Your task to perform on an android device: empty trash in the gmail app Image 0: 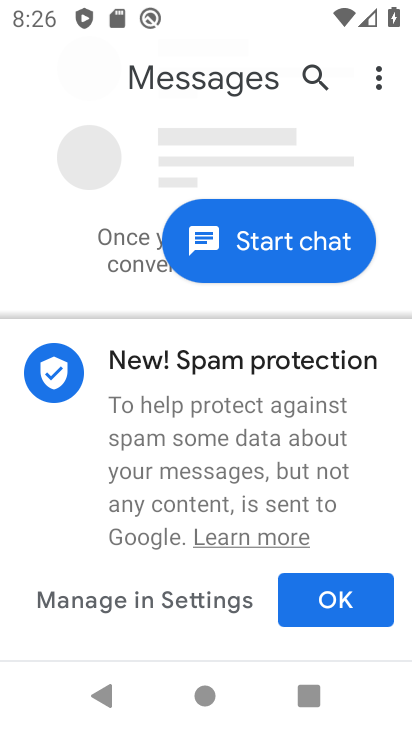
Step 0: click (344, 586)
Your task to perform on an android device: empty trash in the gmail app Image 1: 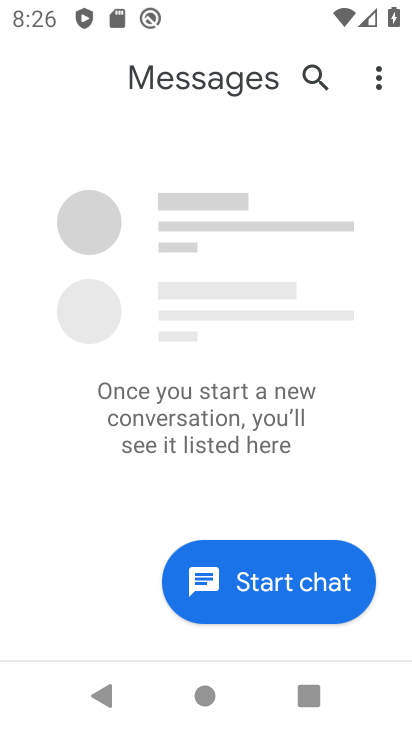
Step 1: press home button
Your task to perform on an android device: empty trash in the gmail app Image 2: 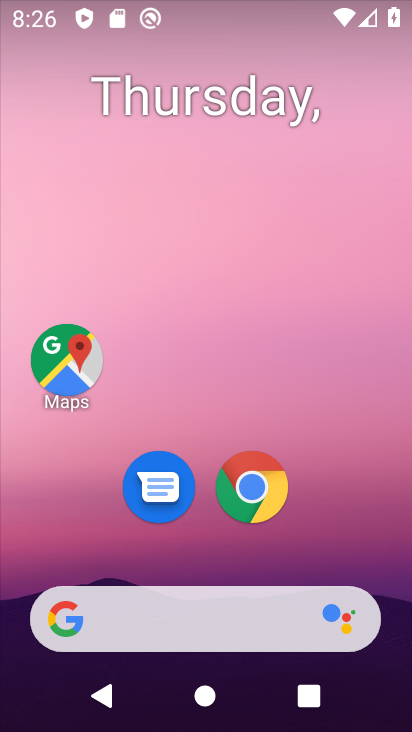
Step 2: drag from (241, 661) to (348, 180)
Your task to perform on an android device: empty trash in the gmail app Image 3: 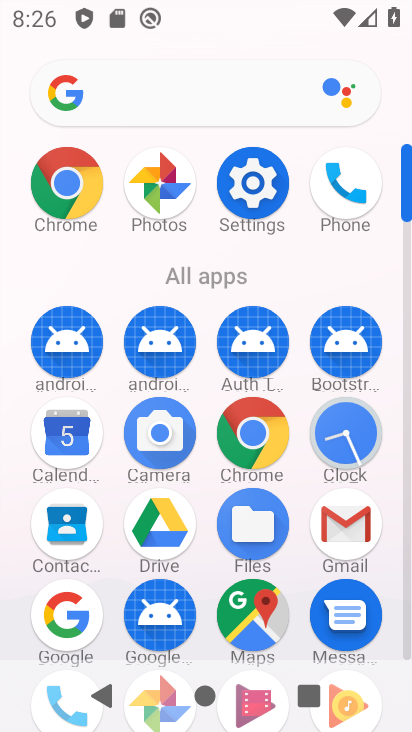
Step 3: click (329, 529)
Your task to perform on an android device: empty trash in the gmail app Image 4: 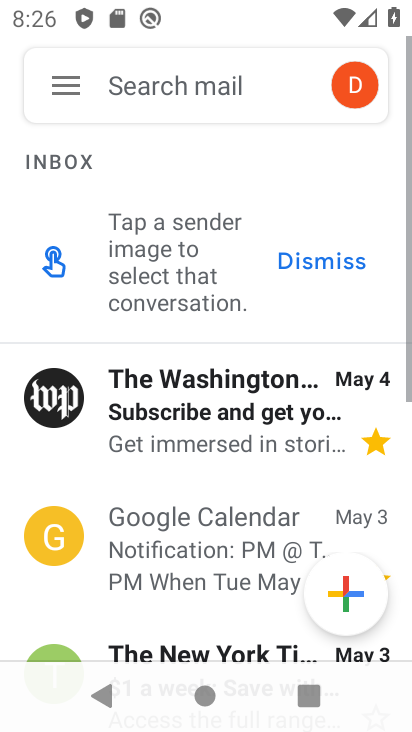
Step 4: click (324, 253)
Your task to perform on an android device: empty trash in the gmail app Image 5: 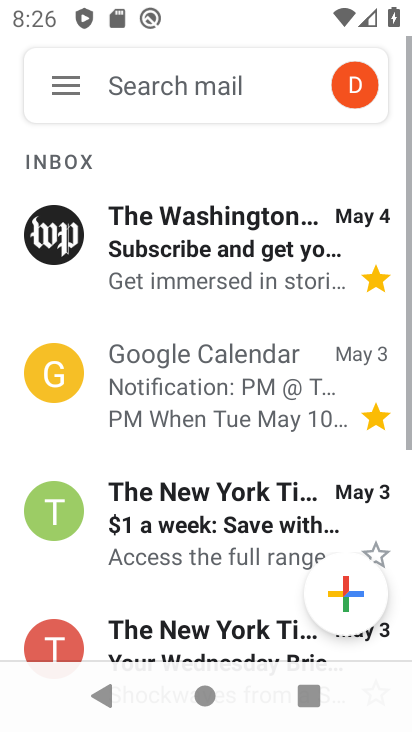
Step 5: click (49, 88)
Your task to perform on an android device: empty trash in the gmail app Image 6: 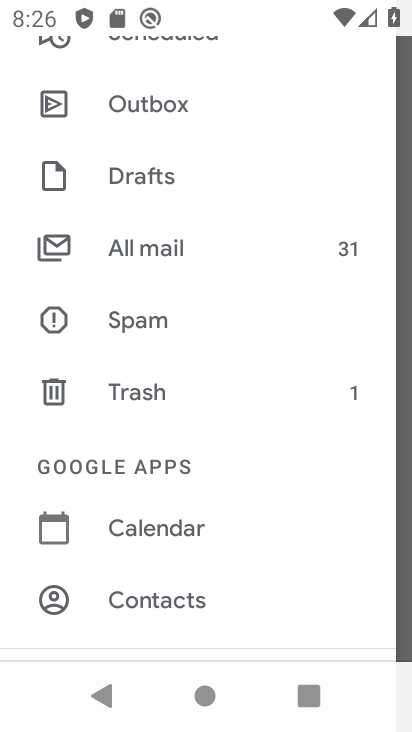
Step 6: click (137, 400)
Your task to perform on an android device: empty trash in the gmail app Image 7: 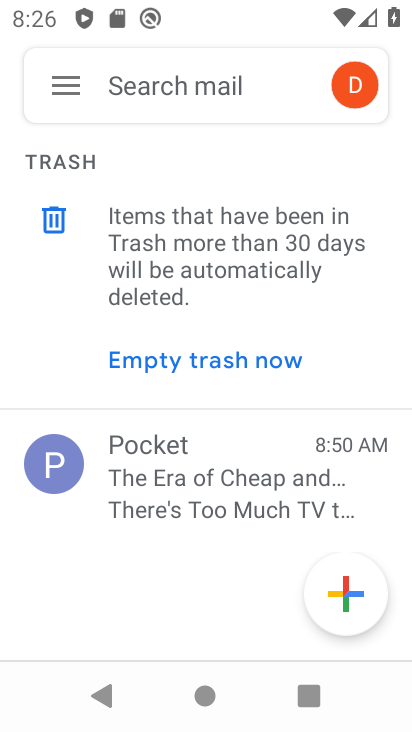
Step 7: click (194, 362)
Your task to perform on an android device: empty trash in the gmail app Image 8: 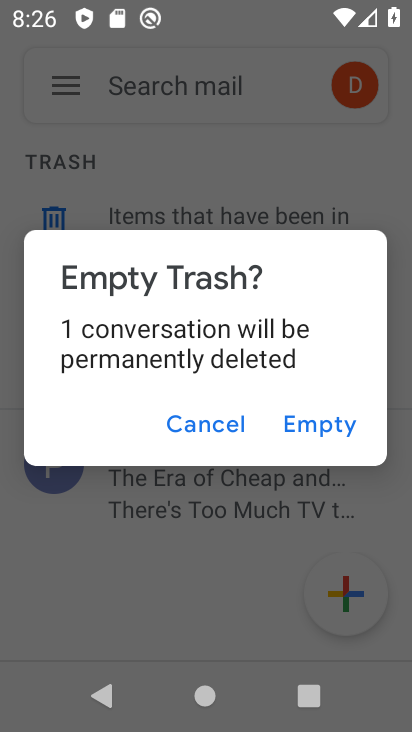
Step 8: click (300, 429)
Your task to perform on an android device: empty trash in the gmail app Image 9: 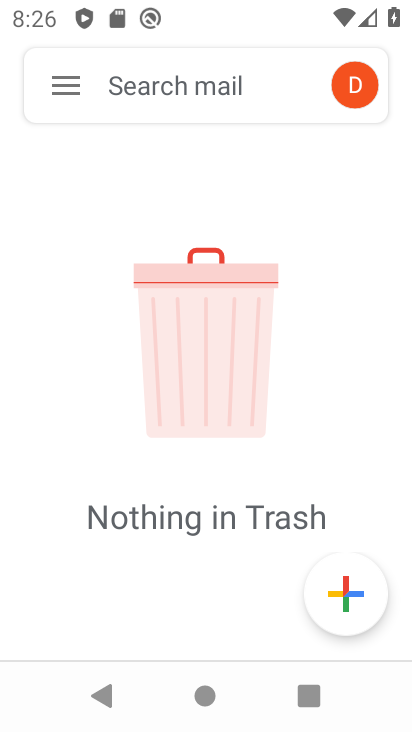
Step 9: task complete